Your task to perform on an android device: Is it going to rain tomorrow? Image 0: 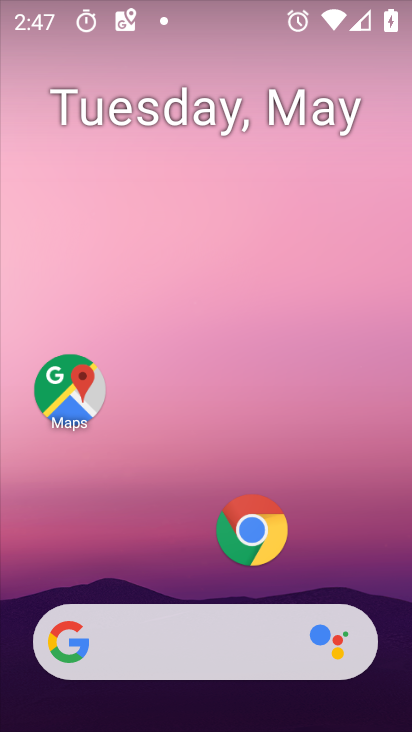
Step 0: click (191, 653)
Your task to perform on an android device: Is it going to rain tomorrow? Image 1: 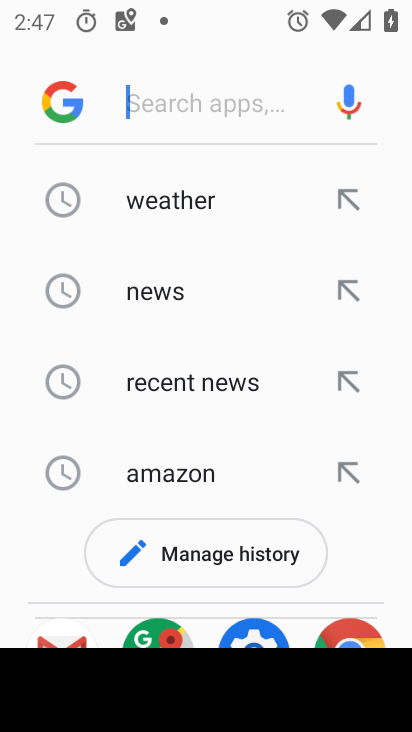
Step 1: click (152, 192)
Your task to perform on an android device: Is it going to rain tomorrow? Image 2: 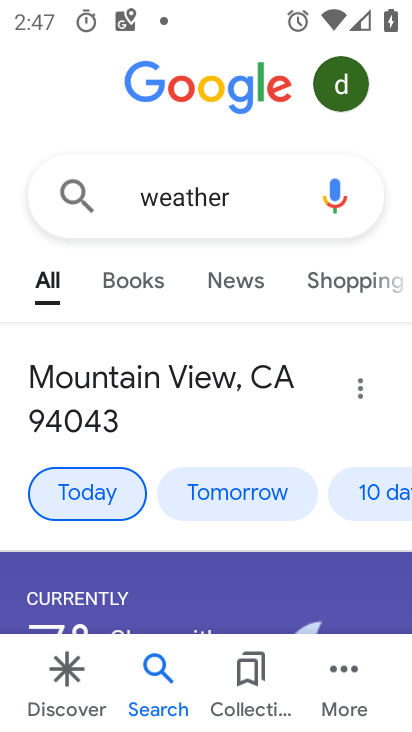
Step 2: click (245, 497)
Your task to perform on an android device: Is it going to rain tomorrow? Image 3: 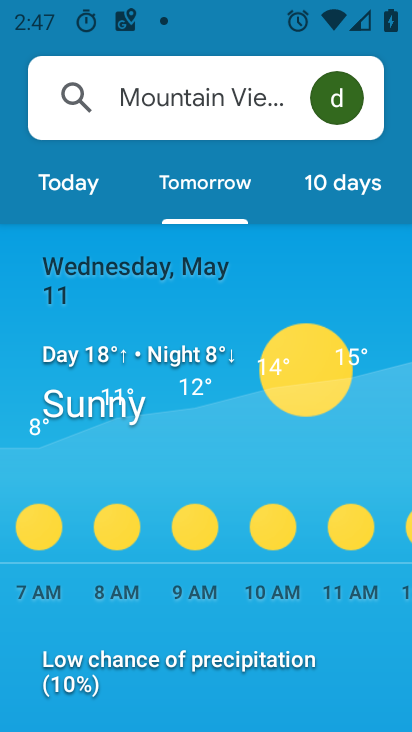
Step 3: task complete